Your task to perform on an android device: Open the phone app and click the voicemail tab. Image 0: 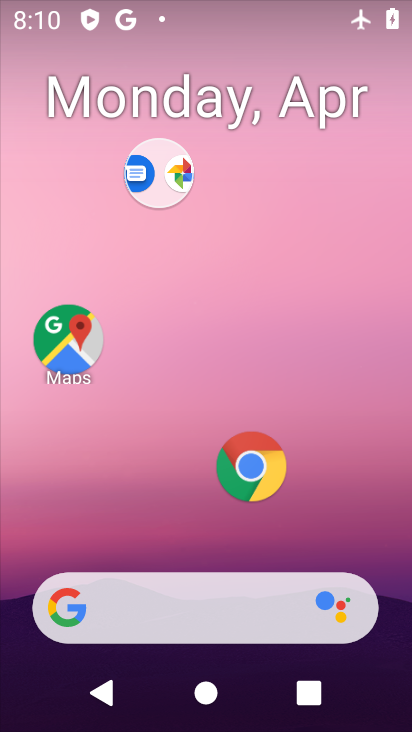
Step 0: click (286, 87)
Your task to perform on an android device: Open the phone app and click the voicemail tab. Image 1: 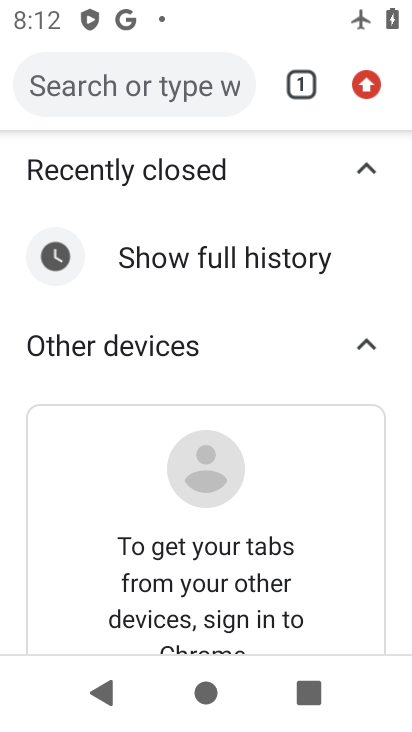
Step 1: press home button
Your task to perform on an android device: Open the phone app and click the voicemail tab. Image 2: 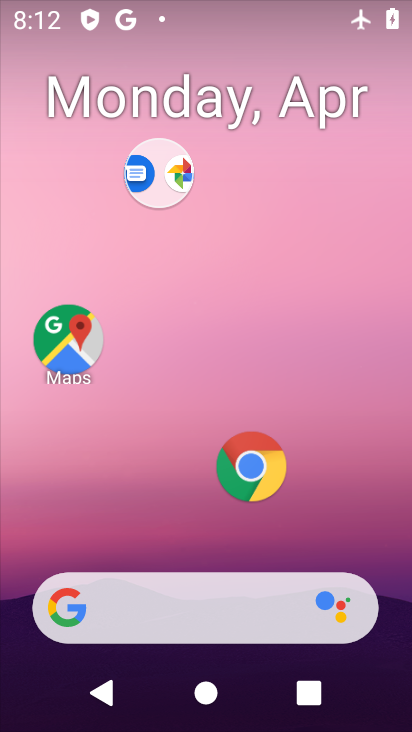
Step 2: drag from (206, 527) to (231, 67)
Your task to perform on an android device: Open the phone app and click the voicemail tab. Image 3: 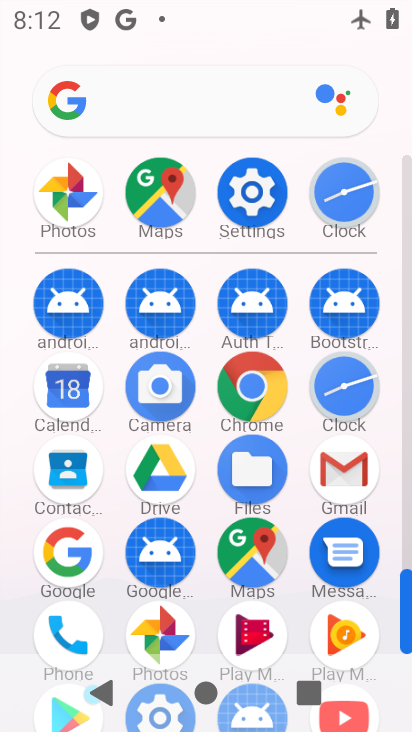
Step 3: click (65, 627)
Your task to perform on an android device: Open the phone app and click the voicemail tab. Image 4: 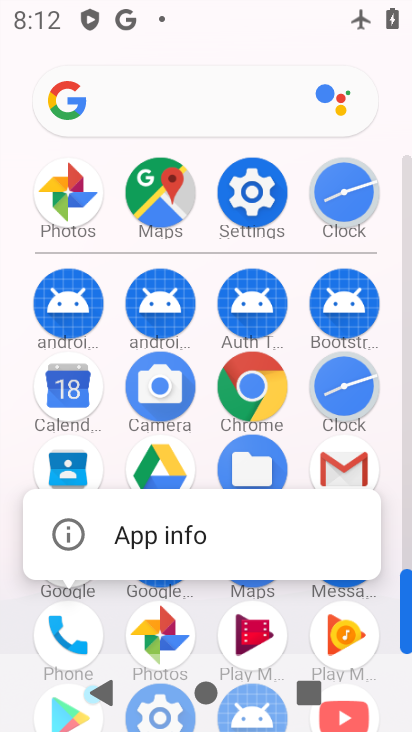
Step 4: click (143, 527)
Your task to perform on an android device: Open the phone app and click the voicemail tab. Image 5: 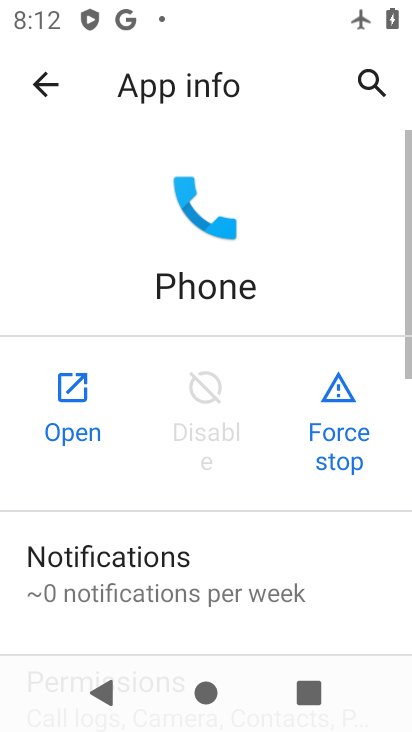
Step 5: click (78, 414)
Your task to perform on an android device: Open the phone app and click the voicemail tab. Image 6: 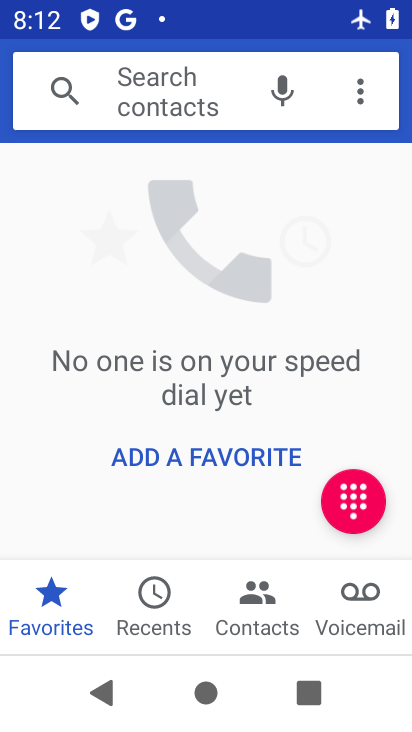
Step 6: click (348, 585)
Your task to perform on an android device: Open the phone app and click the voicemail tab. Image 7: 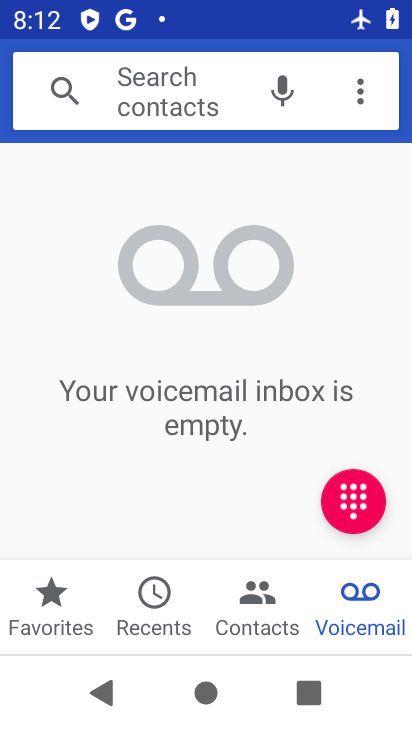
Step 7: task complete